Your task to perform on an android device: toggle wifi Image 0: 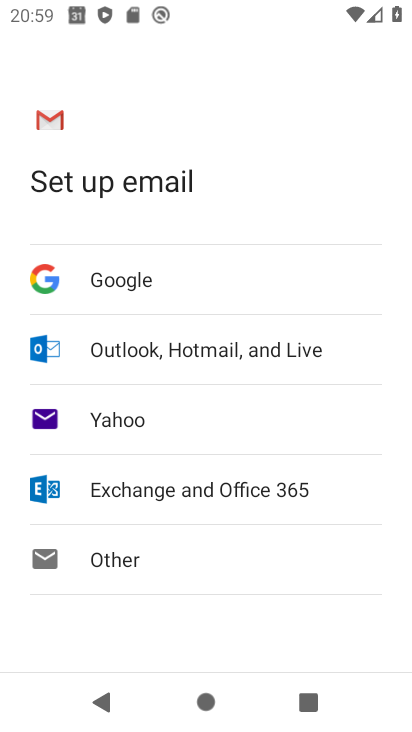
Step 0: press home button
Your task to perform on an android device: toggle wifi Image 1: 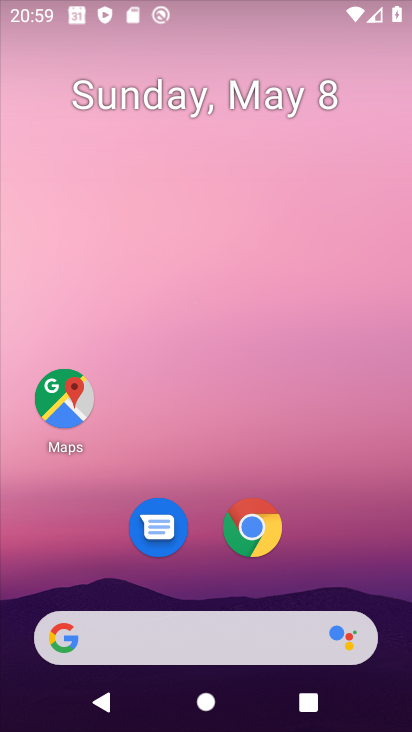
Step 1: drag from (216, 586) to (232, 67)
Your task to perform on an android device: toggle wifi Image 2: 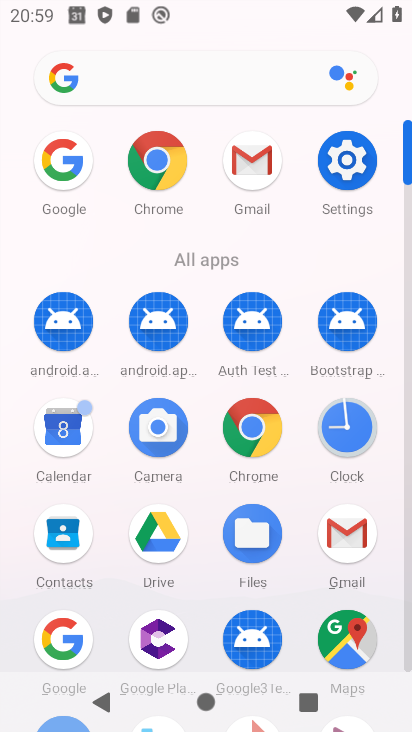
Step 2: click (345, 158)
Your task to perform on an android device: toggle wifi Image 3: 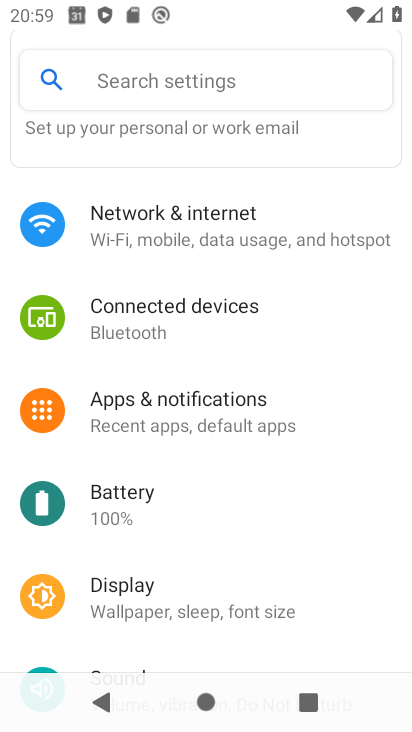
Step 3: click (186, 223)
Your task to perform on an android device: toggle wifi Image 4: 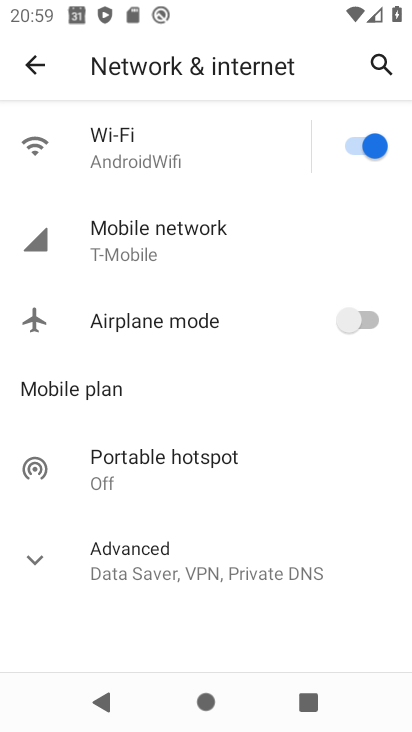
Step 4: click (378, 146)
Your task to perform on an android device: toggle wifi Image 5: 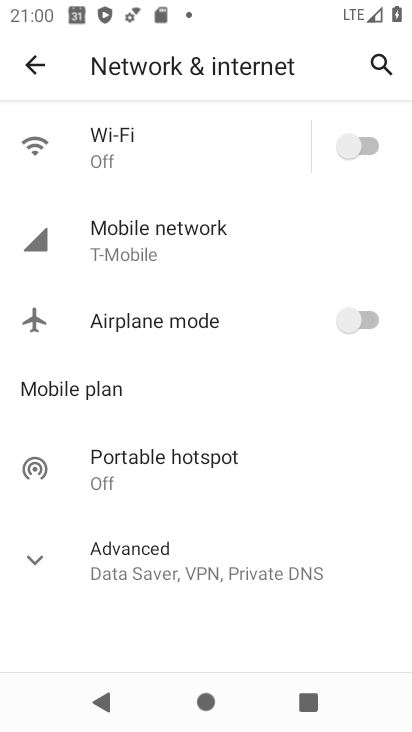
Step 5: task complete